Your task to perform on an android device: Go to calendar. Show me events next week Image 0: 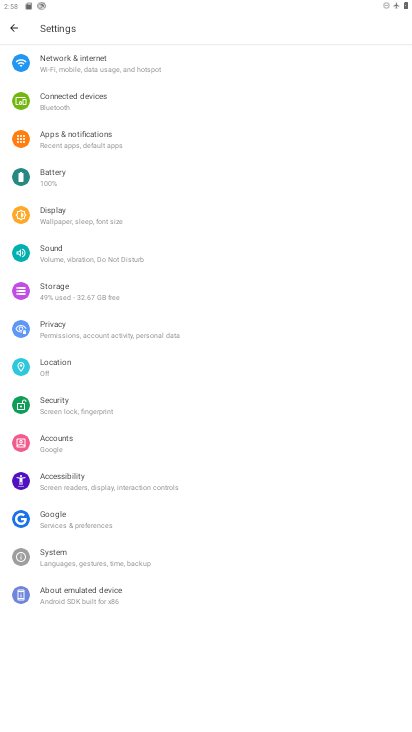
Step 0: press home button
Your task to perform on an android device: Go to calendar. Show me events next week Image 1: 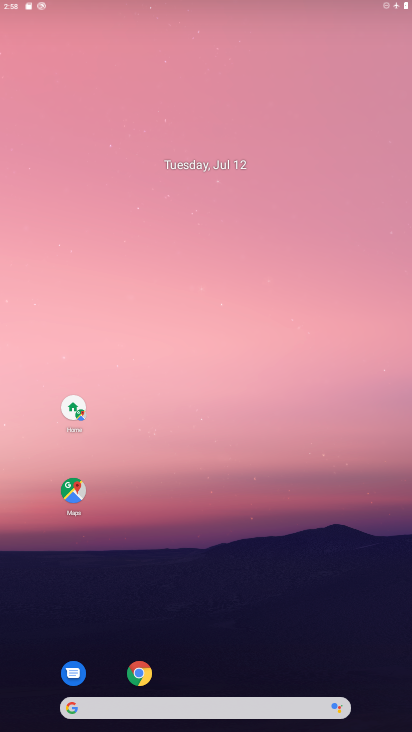
Step 1: drag from (269, 638) to (266, 318)
Your task to perform on an android device: Go to calendar. Show me events next week Image 2: 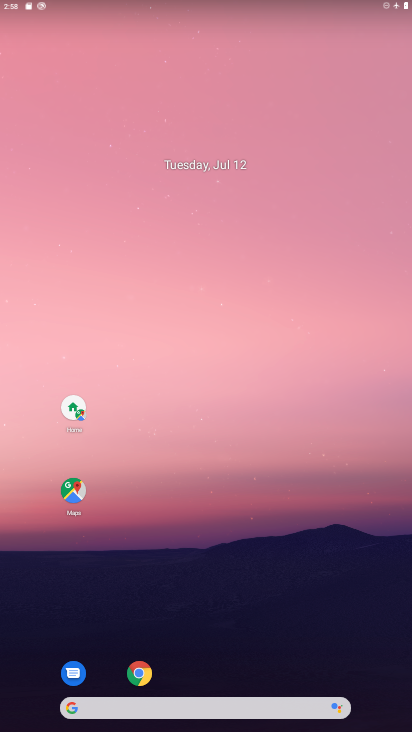
Step 2: drag from (249, 677) to (249, 337)
Your task to perform on an android device: Go to calendar. Show me events next week Image 3: 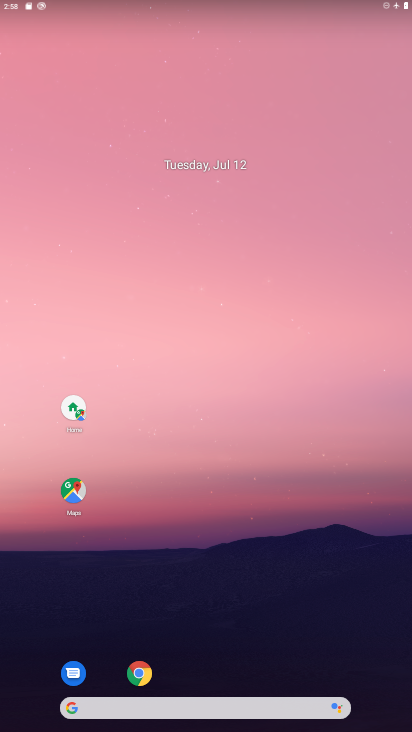
Step 3: drag from (269, 657) to (259, 331)
Your task to perform on an android device: Go to calendar. Show me events next week Image 4: 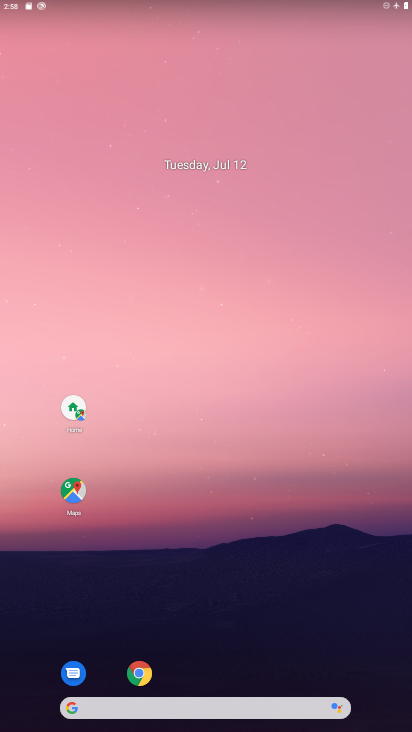
Step 4: drag from (211, 579) to (198, 185)
Your task to perform on an android device: Go to calendar. Show me events next week Image 5: 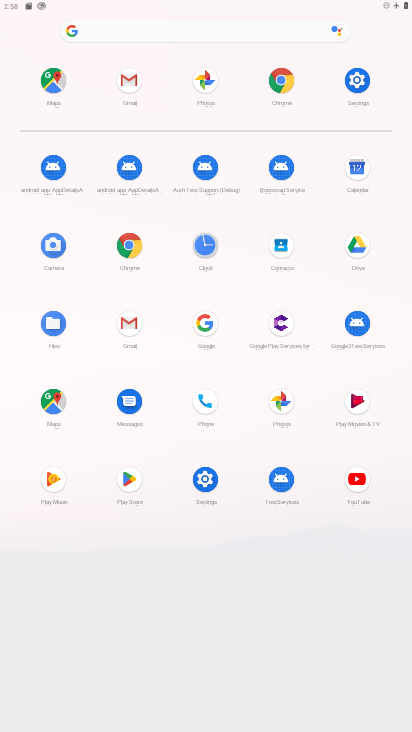
Step 5: click (353, 175)
Your task to perform on an android device: Go to calendar. Show me events next week Image 6: 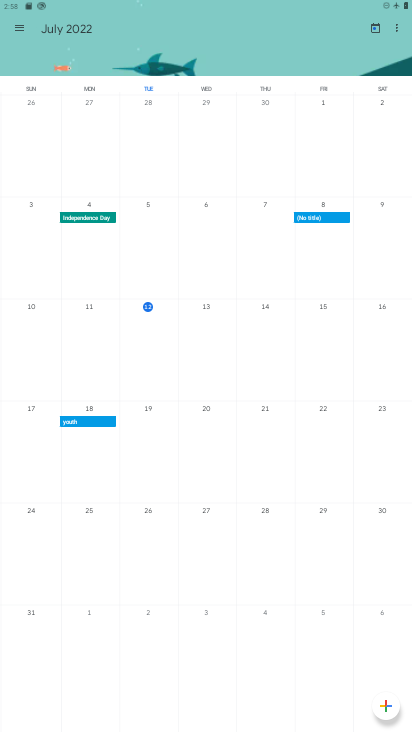
Step 6: click (16, 16)
Your task to perform on an android device: Go to calendar. Show me events next week Image 7: 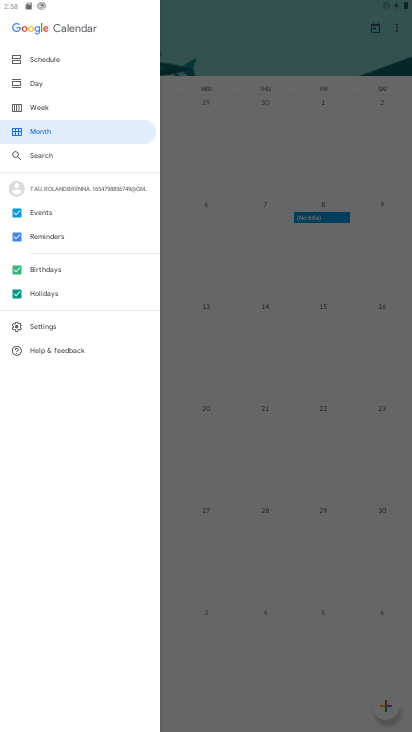
Step 7: click (64, 109)
Your task to perform on an android device: Go to calendar. Show me events next week Image 8: 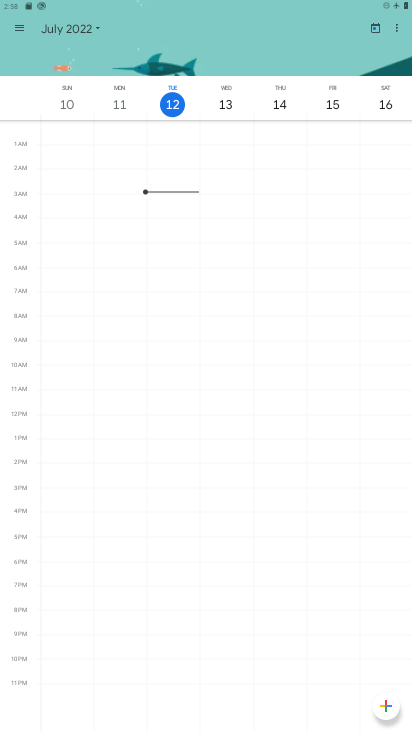
Step 8: task complete